Your task to perform on an android device: star an email in the gmail app Image 0: 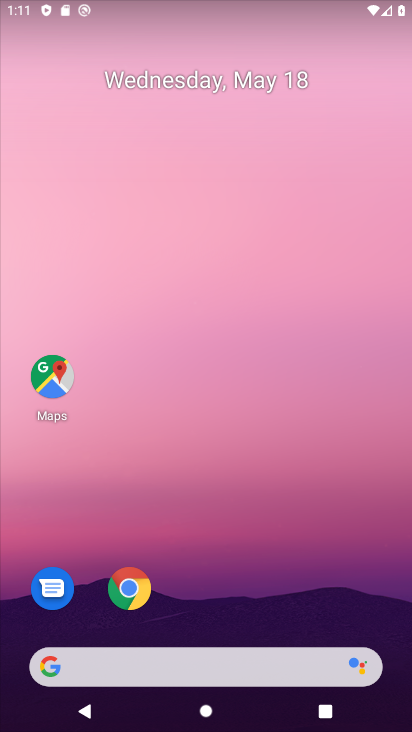
Step 0: drag from (342, 605) to (334, 165)
Your task to perform on an android device: star an email in the gmail app Image 1: 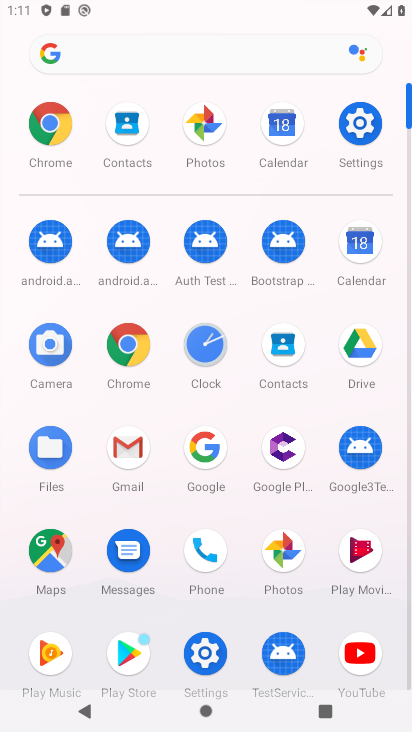
Step 1: click (125, 449)
Your task to perform on an android device: star an email in the gmail app Image 2: 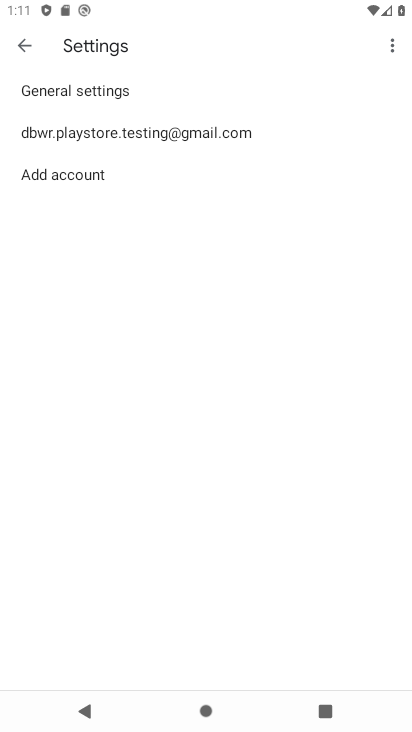
Step 2: click (22, 43)
Your task to perform on an android device: star an email in the gmail app Image 3: 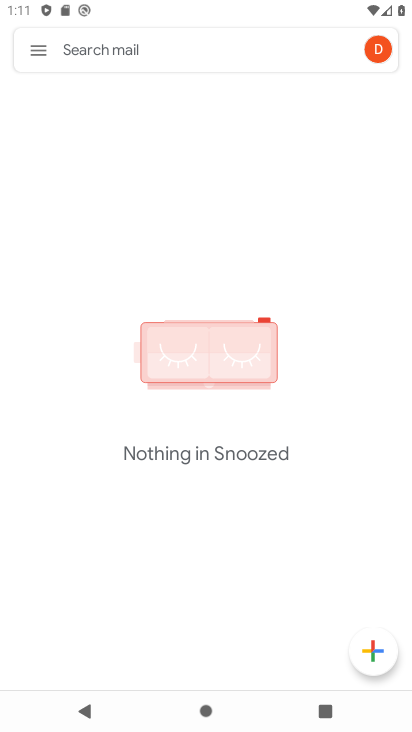
Step 3: click (39, 47)
Your task to perform on an android device: star an email in the gmail app Image 4: 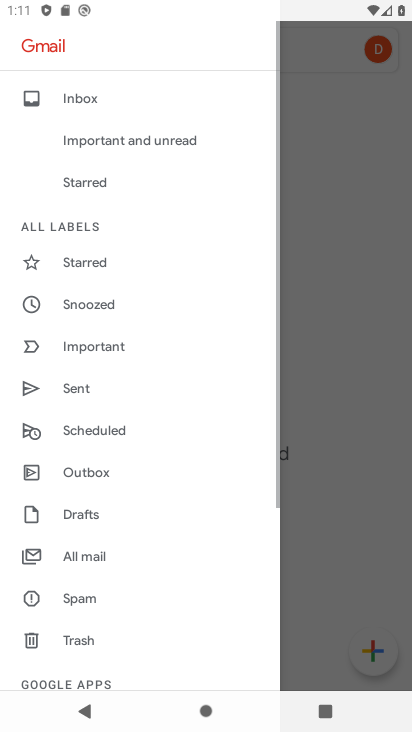
Step 4: drag from (178, 578) to (186, 423)
Your task to perform on an android device: star an email in the gmail app Image 5: 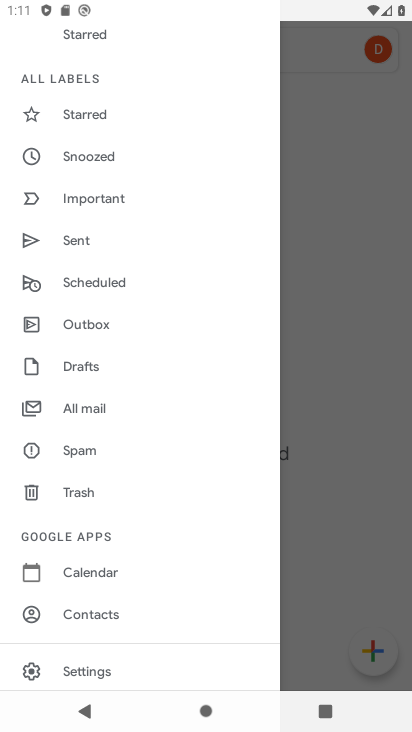
Step 5: drag from (168, 623) to (192, 383)
Your task to perform on an android device: star an email in the gmail app Image 6: 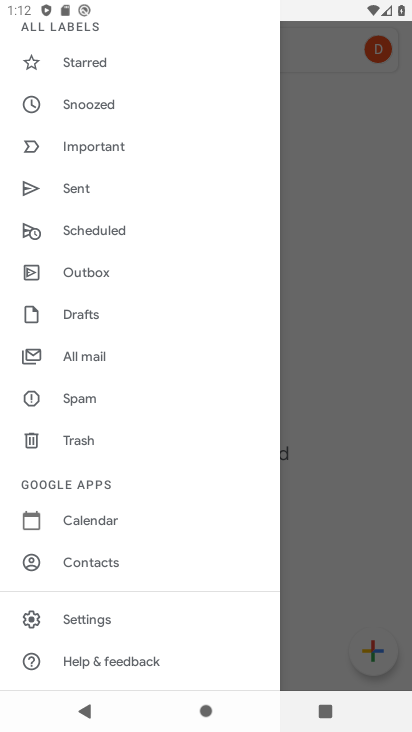
Step 6: drag from (187, 597) to (213, 267)
Your task to perform on an android device: star an email in the gmail app Image 7: 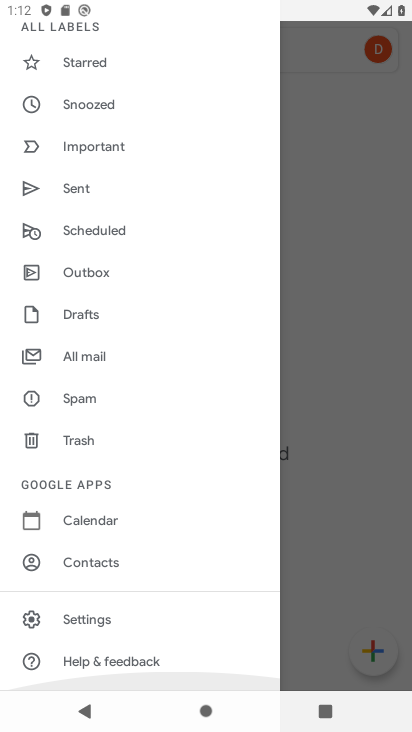
Step 7: drag from (217, 188) to (198, 359)
Your task to perform on an android device: star an email in the gmail app Image 8: 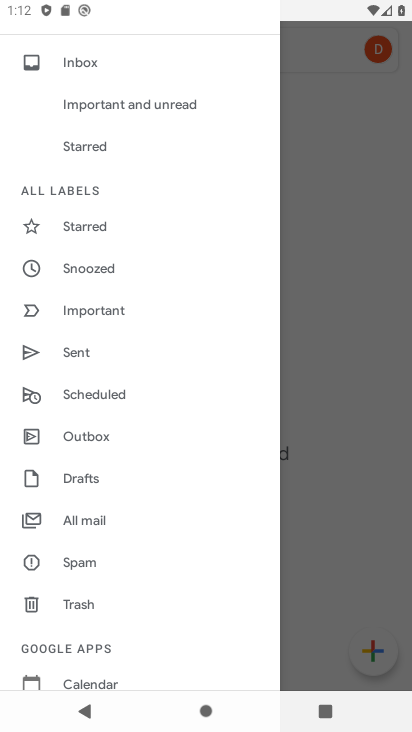
Step 8: drag from (198, 156) to (201, 436)
Your task to perform on an android device: star an email in the gmail app Image 9: 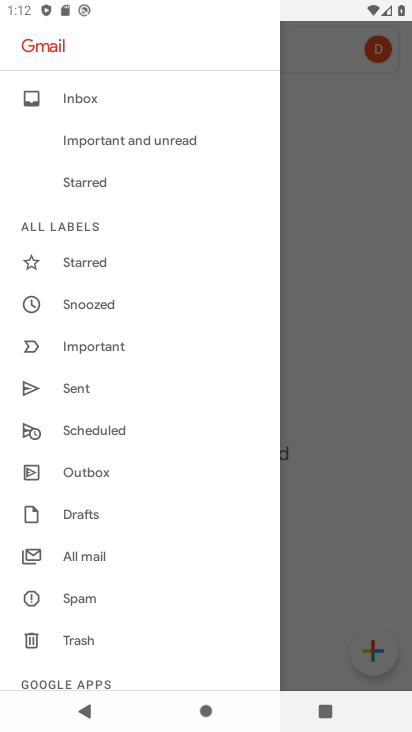
Step 9: click (79, 102)
Your task to perform on an android device: star an email in the gmail app Image 10: 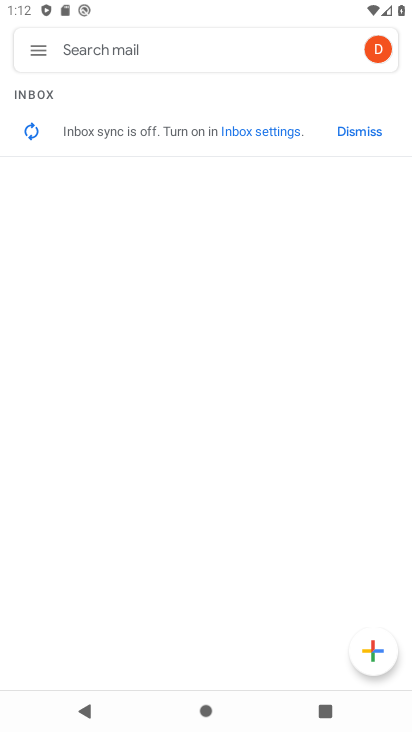
Step 10: task complete